Your task to perform on an android device: Show me recent news Image 0: 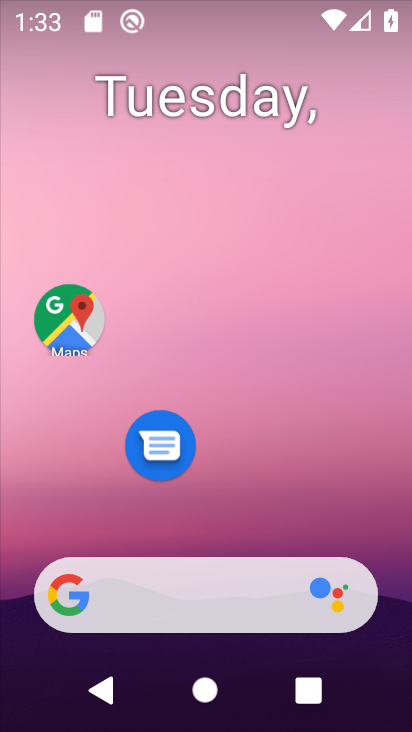
Step 0: drag from (11, 194) to (372, 328)
Your task to perform on an android device: Show me recent news Image 1: 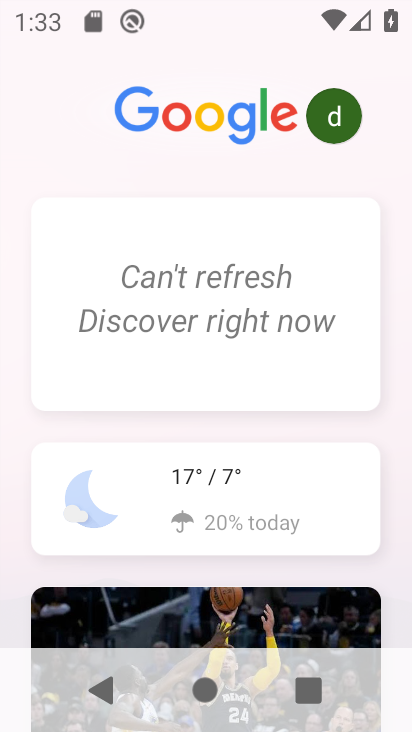
Step 1: task complete